Your task to perform on an android device: Open Google Chrome and open the bookmarks view Image 0: 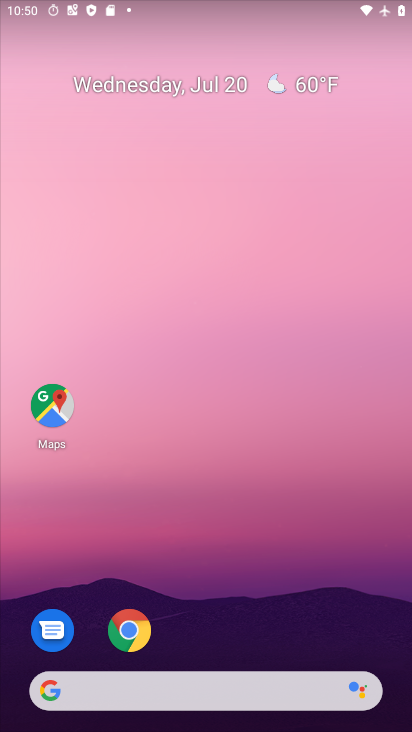
Step 0: click (128, 635)
Your task to perform on an android device: Open Google Chrome and open the bookmarks view Image 1: 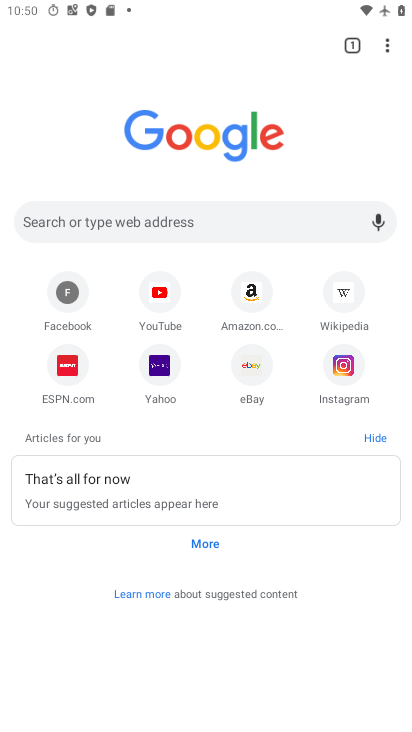
Step 1: click (381, 46)
Your task to perform on an android device: Open Google Chrome and open the bookmarks view Image 2: 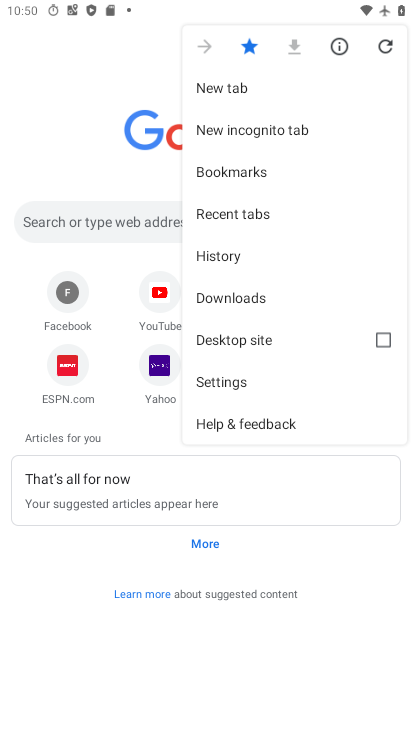
Step 2: click (244, 174)
Your task to perform on an android device: Open Google Chrome and open the bookmarks view Image 3: 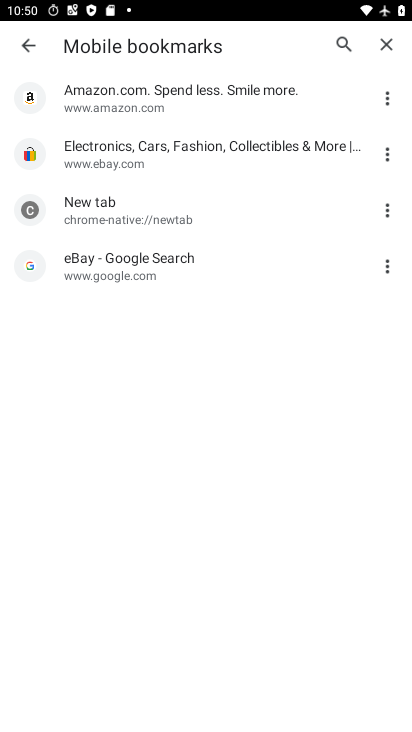
Step 3: click (133, 95)
Your task to perform on an android device: Open Google Chrome and open the bookmarks view Image 4: 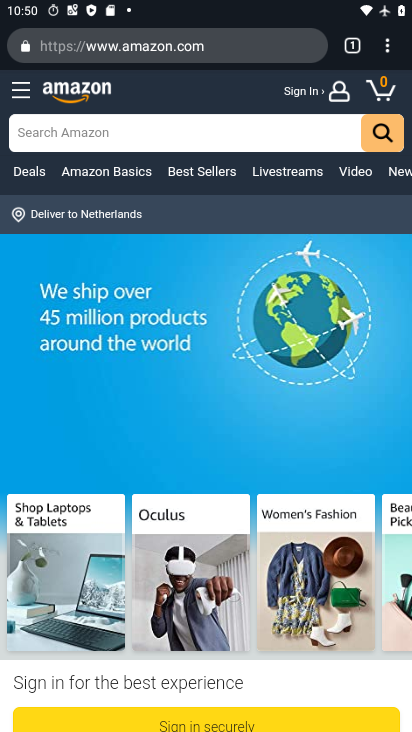
Step 4: task complete